Your task to perform on an android device: change the upload size in google photos Image 0: 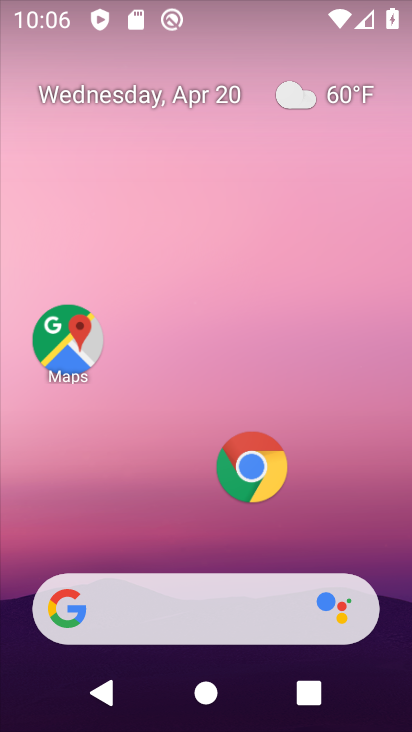
Step 0: drag from (317, 536) to (338, 145)
Your task to perform on an android device: change the upload size in google photos Image 1: 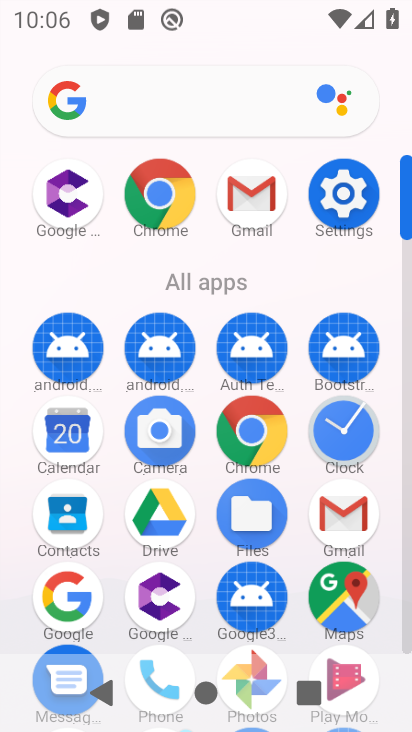
Step 1: drag from (286, 621) to (287, 303)
Your task to perform on an android device: change the upload size in google photos Image 2: 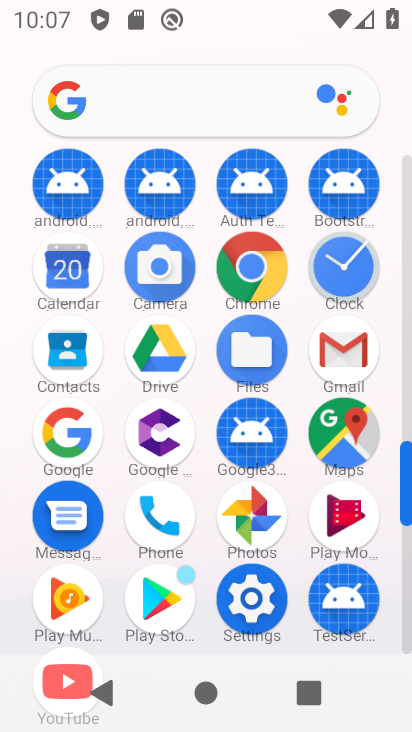
Step 2: click (255, 505)
Your task to perform on an android device: change the upload size in google photos Image 3: 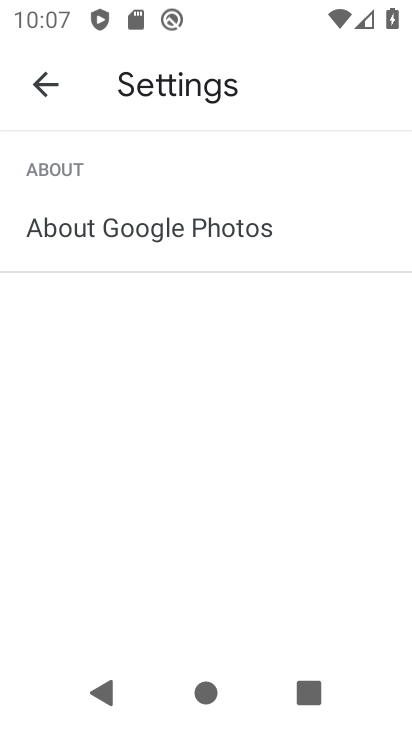
Step 3: click (42, 89)
Your task to perform on an android device: change the upload size in google photos Image 4: 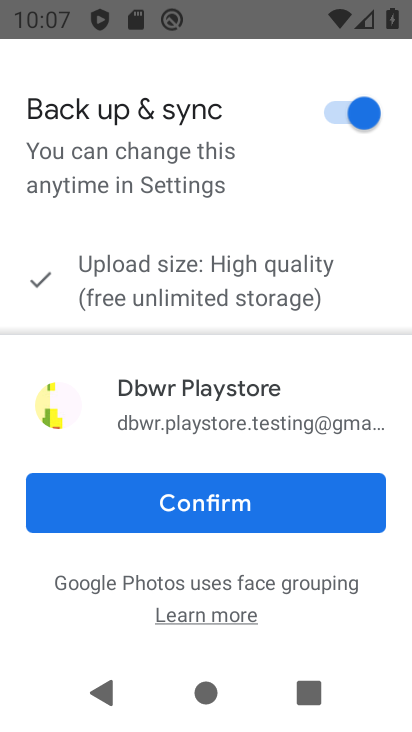
Step 4: click (110, 489)
Your task to perform on an android device: change the upload size in google photos Image 5: 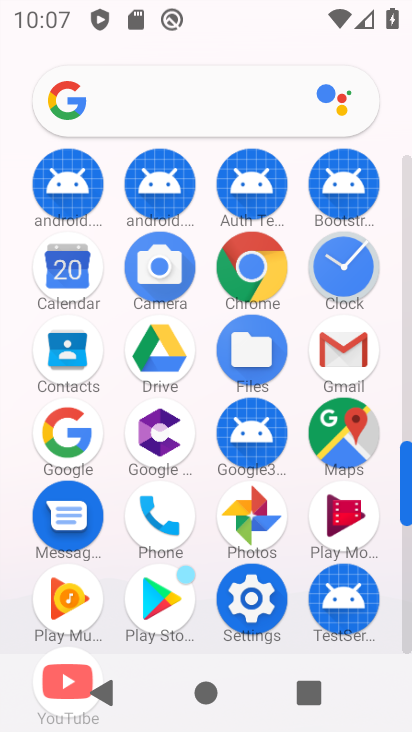
Step 5: click (233, 515)
Your task to perform on an android device: change the upload size in google photos Image 6: 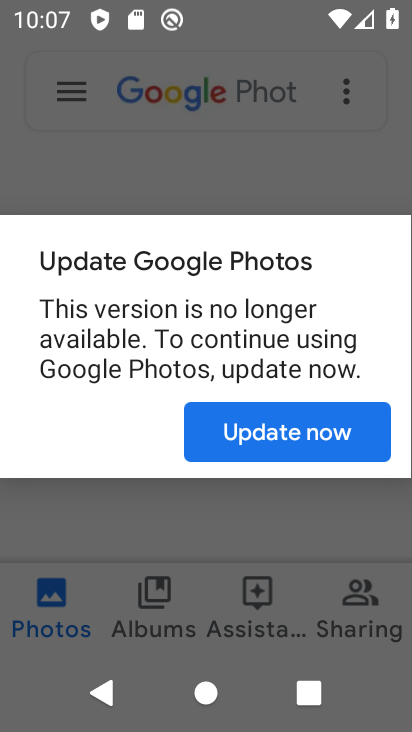
Step 6: click (267, 450)
Your task to perform on an android device: change the upload size in google photos Image 7: 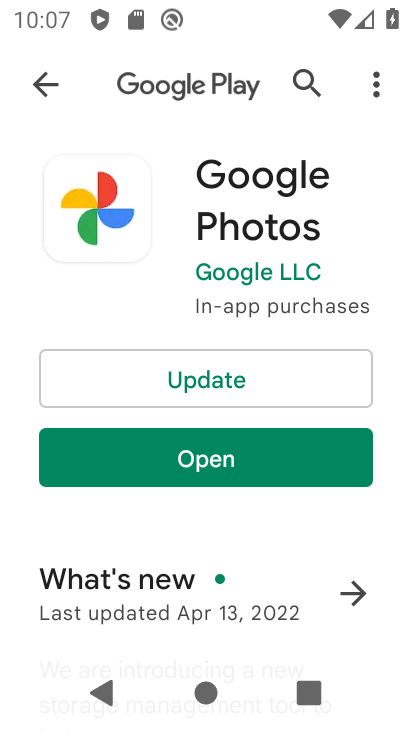
Step 7: click (234, 385)
Your task to perform on an android device: change the upload size in google photos Image 8: 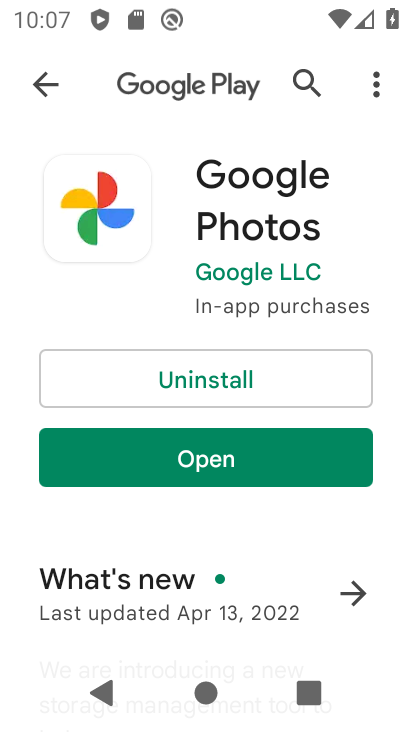
Step 8: click (220, 469)
Your task to perform on an android device: change the upload size in google photos Image 9: 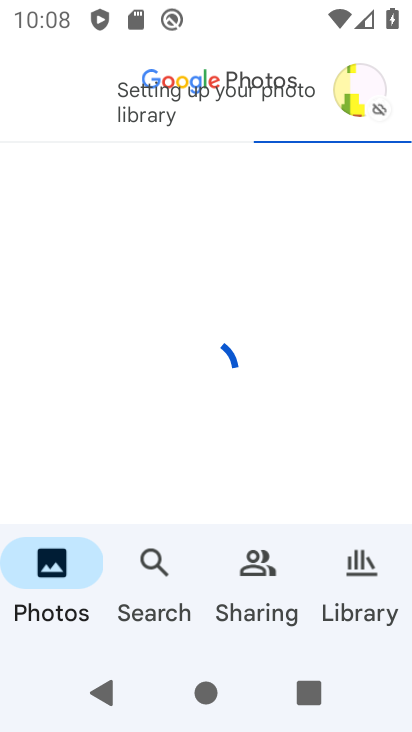
Step 9: click (371, 93)
Your task to perform on an android device: change the upload size in google photos Image 10: 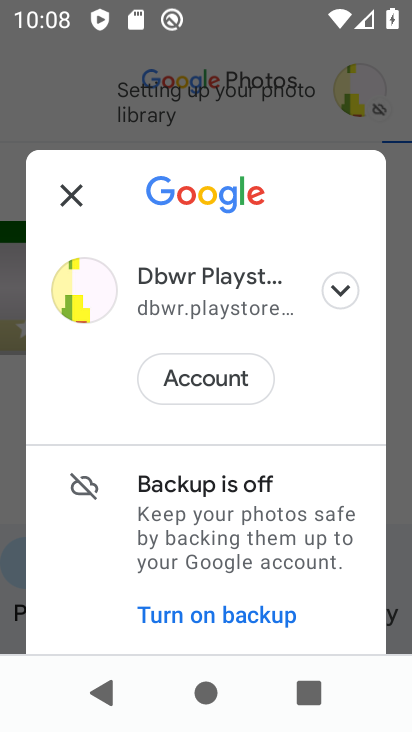
Step 10: drag from (191, 534) to (205, 375)
Your task to perform on an android device: change the upload size in google photos Image 11: 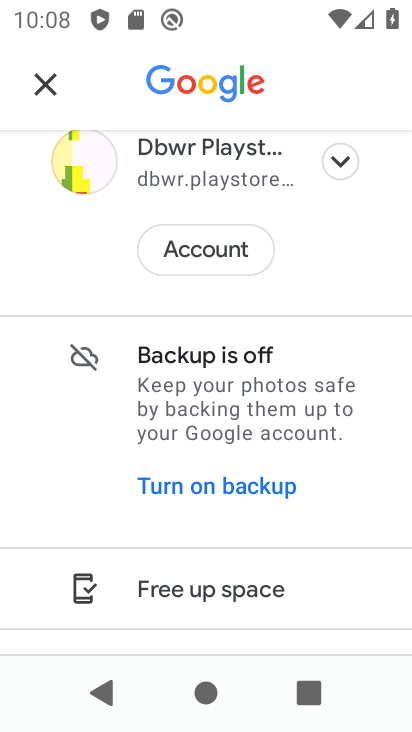
Step 11: drag from (202, 495) to (229, 323)
Your task to perform on an android device: change the upload size in google photos Image 12: 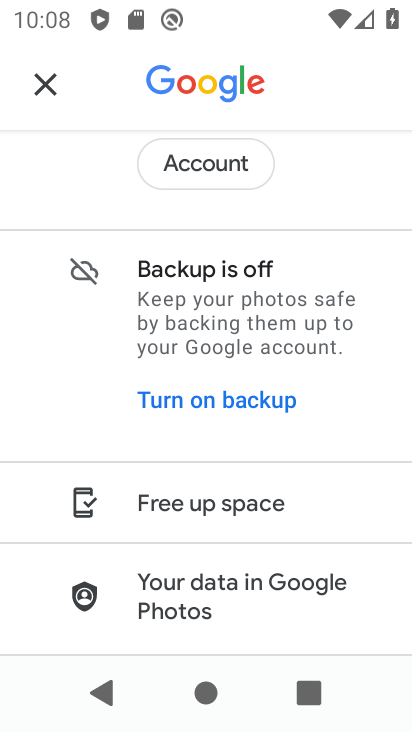
Step 12: drag from (205, 507) to (232, 319)
Your task to perform on an android device: change the upload size in google photos Image 13: 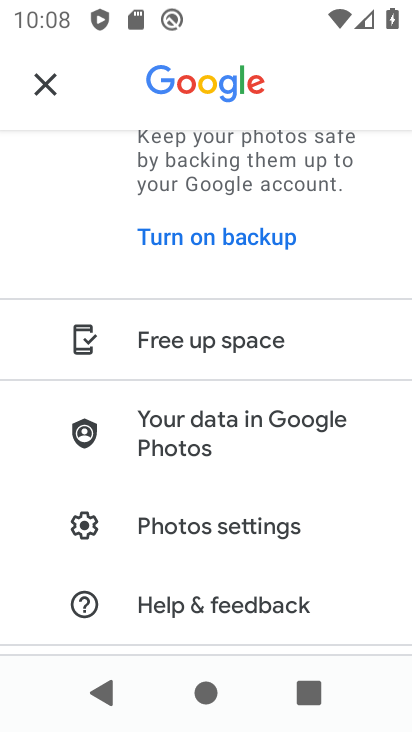
Step 13: click (265, 533)
Your task to perform on an android device: change the upload size in google photos Image 14: 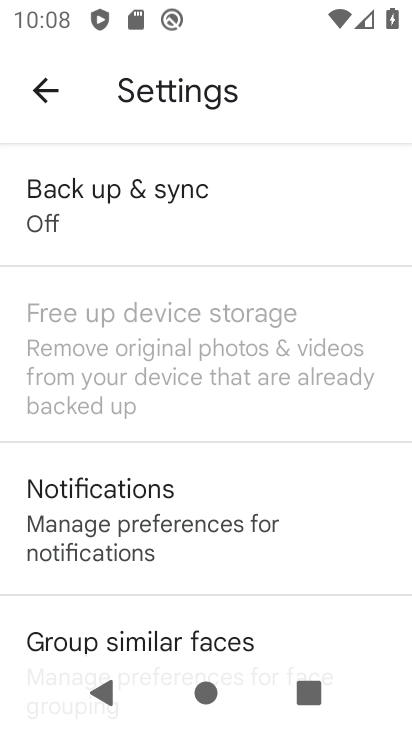
Step 14: click (142, 228)
Your task to perform on an android device: change the upload size in google photos Image 15: 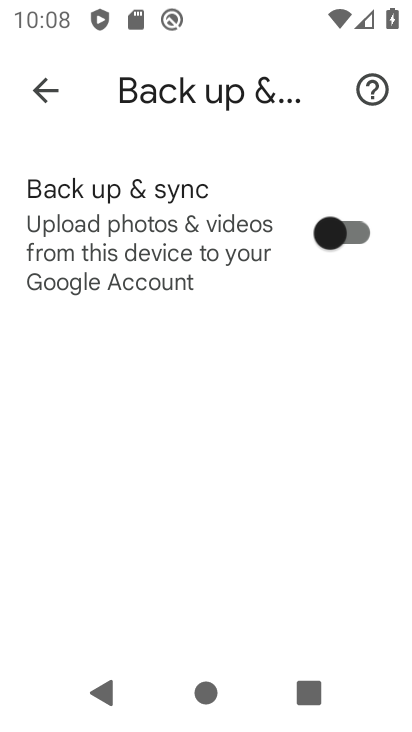
Step 15: click (63, 227)
Your task to perform on an android device: change the upload size in google photos Image 16: 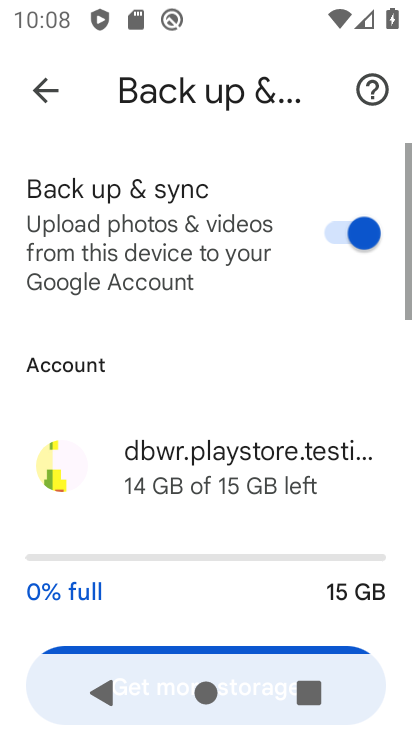
Step 16: click (48, 216)
Your task to perform on an android device: change the upload size in google photos Image 17: 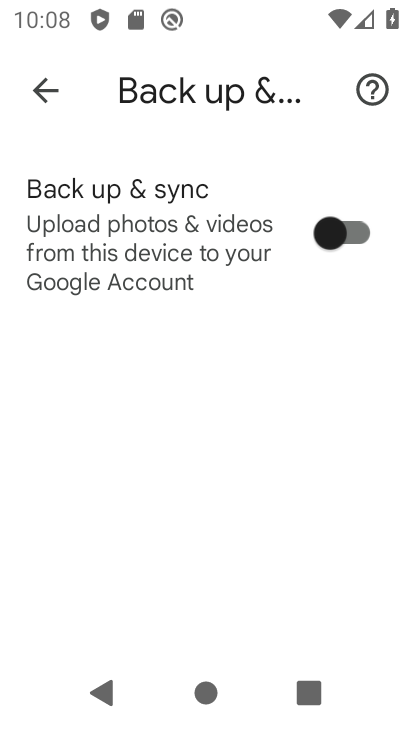
Step 17: click (48, 215)
Your task to perform on an android device: change the upload size in google photos Image 18: 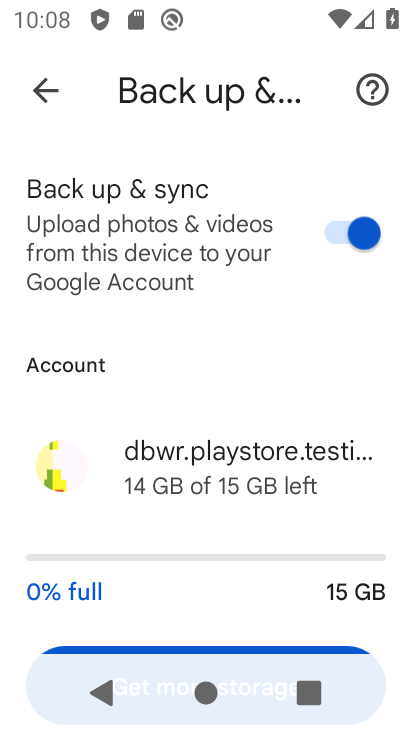
Step 18: drag from (84, 265) to (120, 137)
Your task to perform on an android device: change the upload size in google photos Image 19: 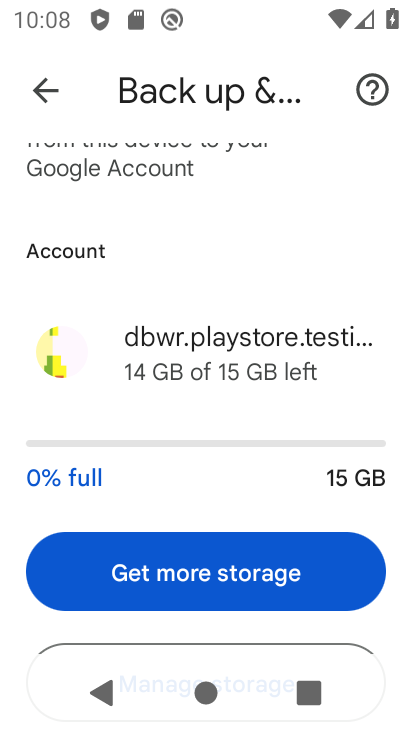
Step 19: drag from (180, 386) to (243, 225)
Your task to perform on an android device: change the upload size in google photos Image 20: 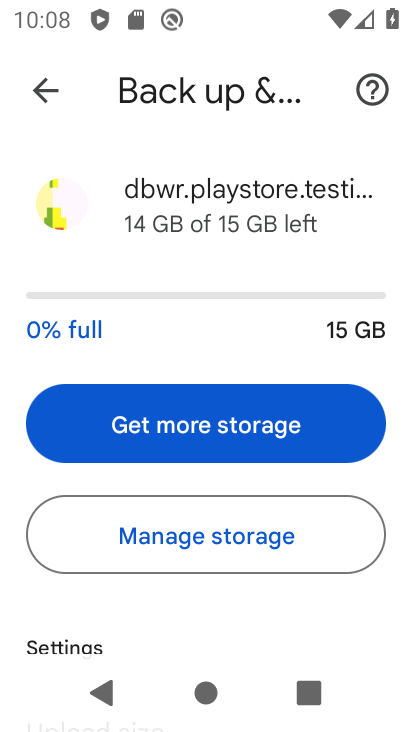
Step 20: drag from (142, 519) to (207, 286)
Your task to perform on an android device: change the upload size in google photos Image 21: 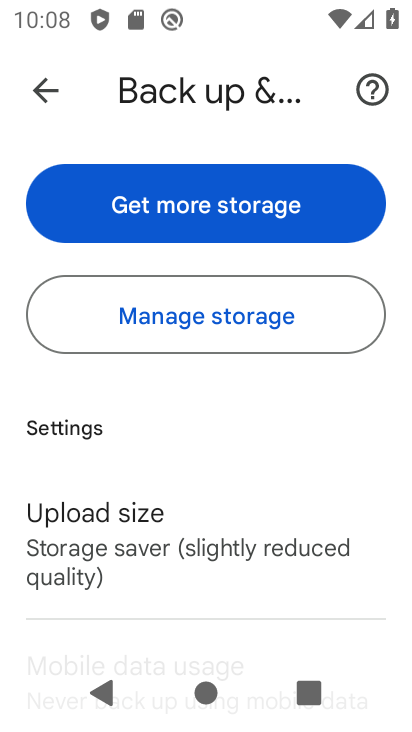
Step 21: drag from (215, 509) to (247, 318)
Your task to perform on an android device: change the upload size in google photos Image 22: 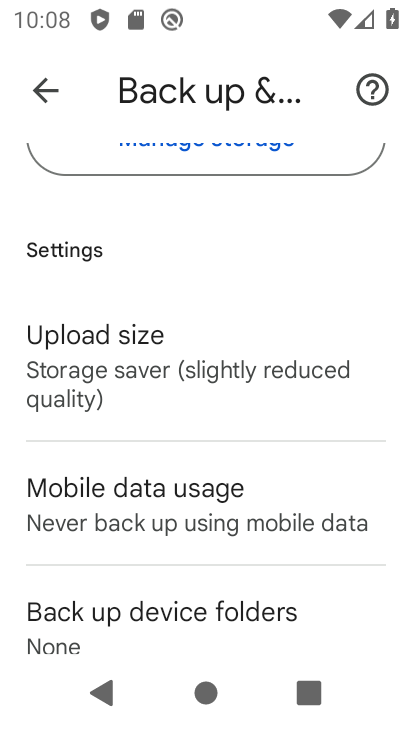
Step 22: click (221, 348)
Your task to perform on an android device: change the upload size in google photos Image 23: 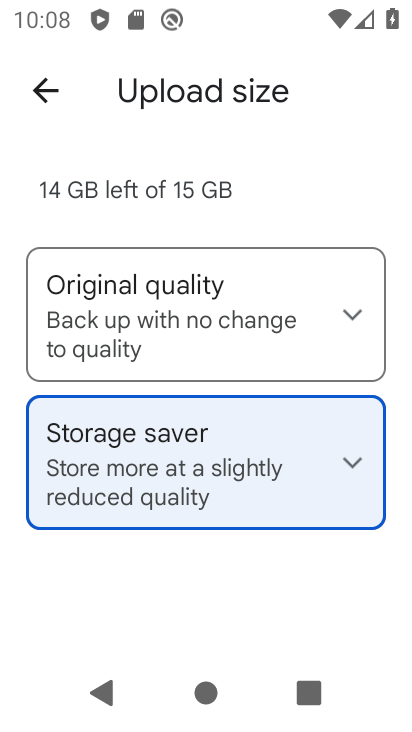
Step 23: click (253, 325)
Your task to perform on an android device: change the upload size in google photos Image 24: 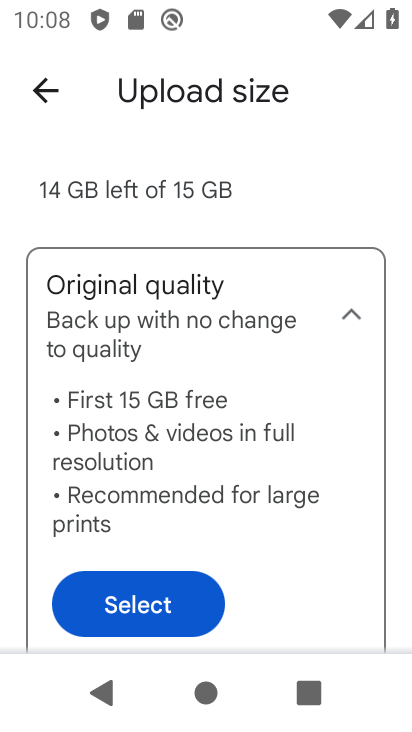
Step 24: click (165, 604)
Your task to perform on an android device: change the upload size in google photos Image 25: 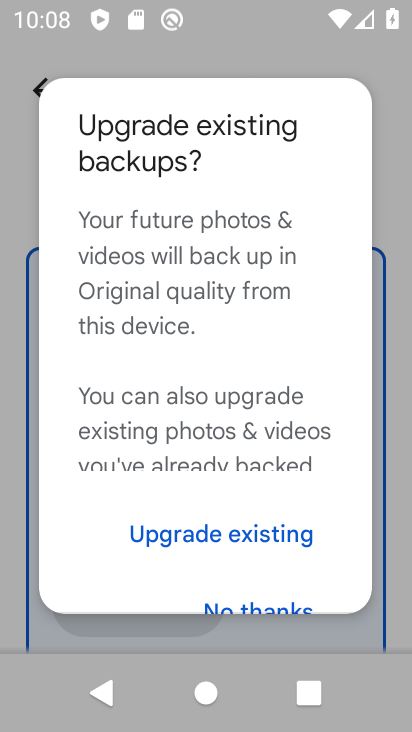
Step 25: drag from (267, 489) to (321, 238)
Your task to perform on an android device: change the upload size in google photos Image 26: 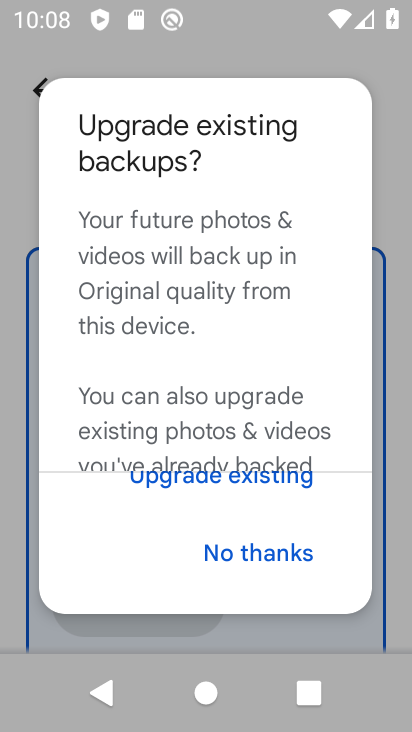
Step 26: click (277, 548)
Your task to perform on an android device: change the upload size in google photos Image 27: 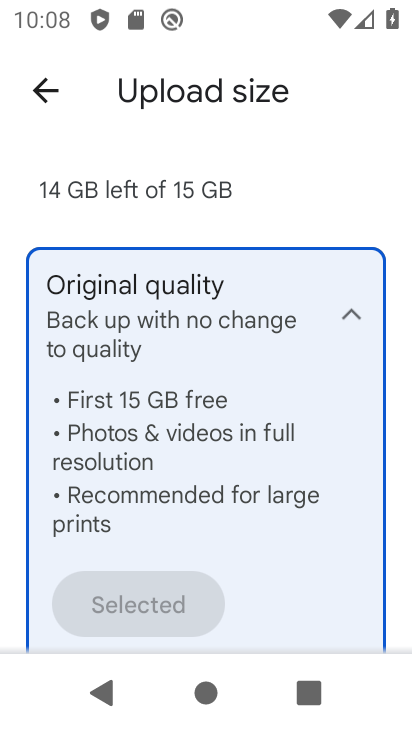
Step 27: task complete